Your task to perform on an android device: Show me productivity apps on the Play Store Image 0: 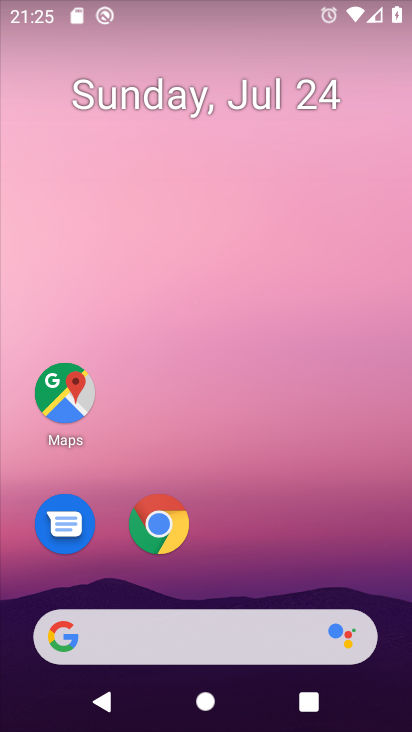
Step 0: drag from (225, 559) to (267, 10)
Your task to perform on an android device: Show me productivity apps on the Play Store Image 1: 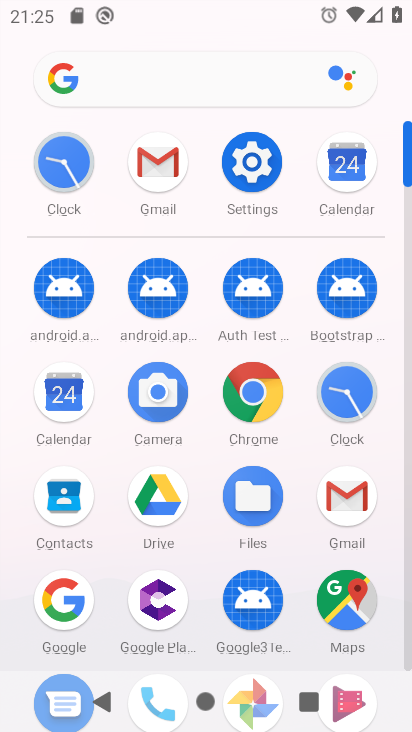
Step 1: drag from (196, 536) to (211, 31)
Your task to perform on an android device: Show me productivity apps on the Play Store Image 2: 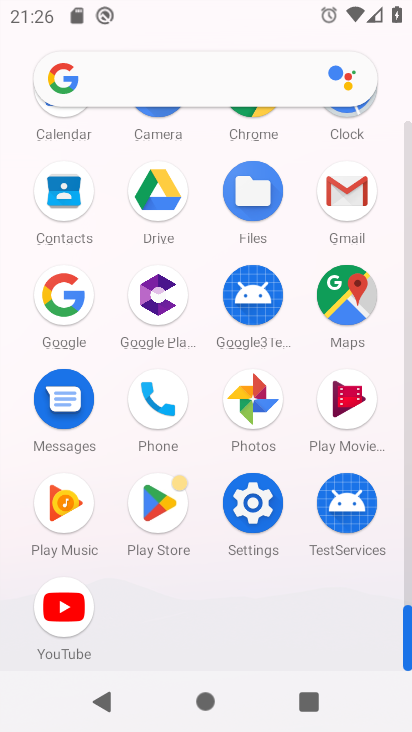
Step 2: click (156, 492)
Your task to perform on an android device: Show me productivity apps on the Play Store Image 3: 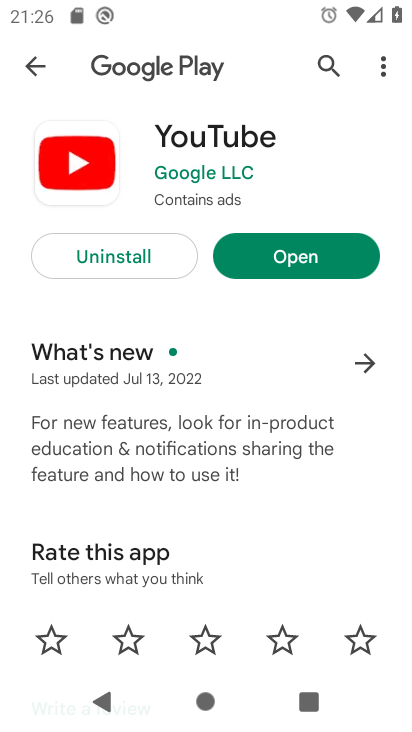
Step 3: click (40, 63)
Your task to perform on an android device: Show me productivity apps on the Play Store Image 4: 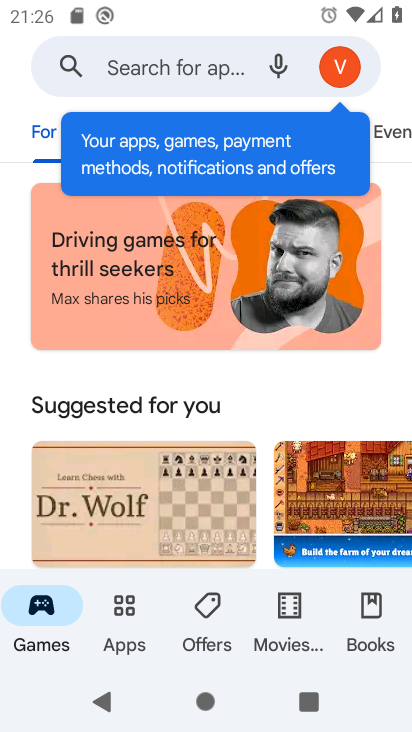
Step 4: click (128, 618)
Your task to perform on an android device: Show me productivity apps on the Play Store Image 5: 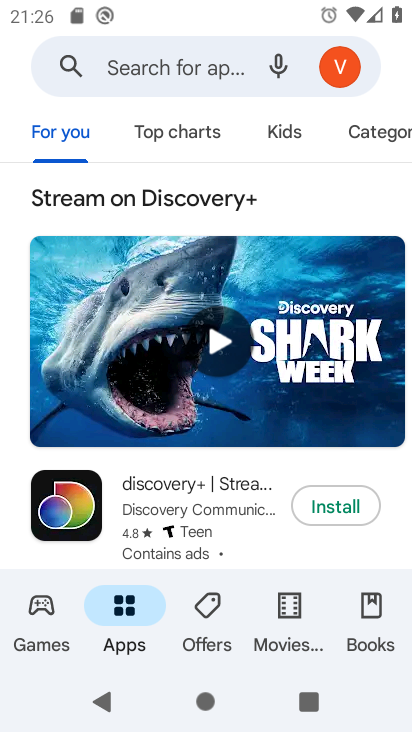
Step 5: click (385, 128)
Your task to perform on an android device: Show me productivity apps on the Play Store Image 6: 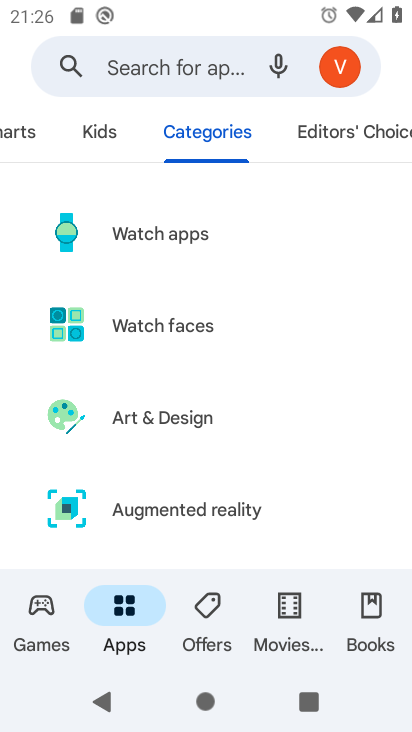
Step 6: drag from (243, 456) to (260, 6)
Your task to perform on an android device: Show me productivity apps on the Play Store Image 7: 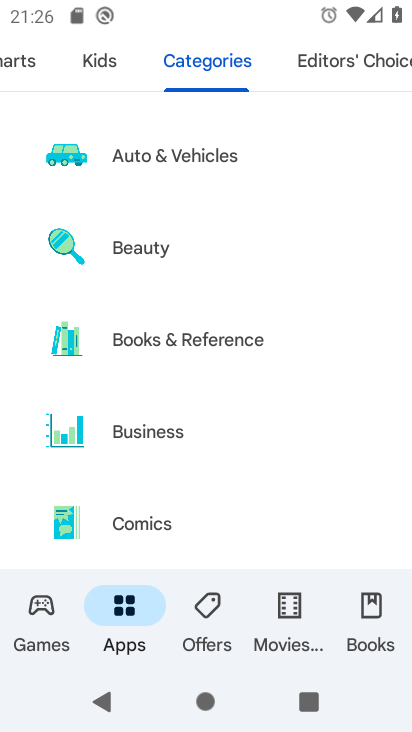
Step 7: drag from (256, 515) to (268, 7)
Your task to perform on an android device: Show me productivity apps on the Play Store Image 8: 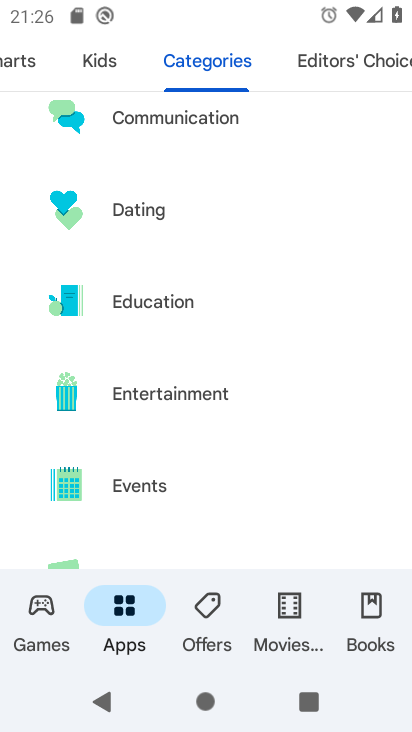
Step 8: drag from (258, 469) to (267, 146)
Your task to perform on an android device: Show me productivity apps on the Play Store Image 9: 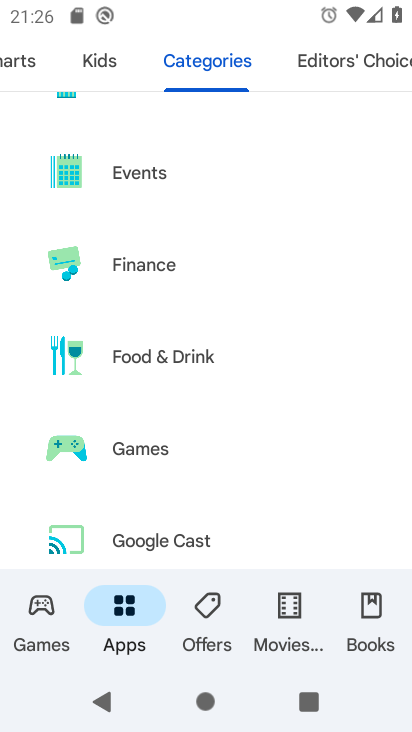
Step 9: drag from (265, 287) to (263, 109)
Your task to perform on an android device: Show me productivity apps on the Play Store Image 10: 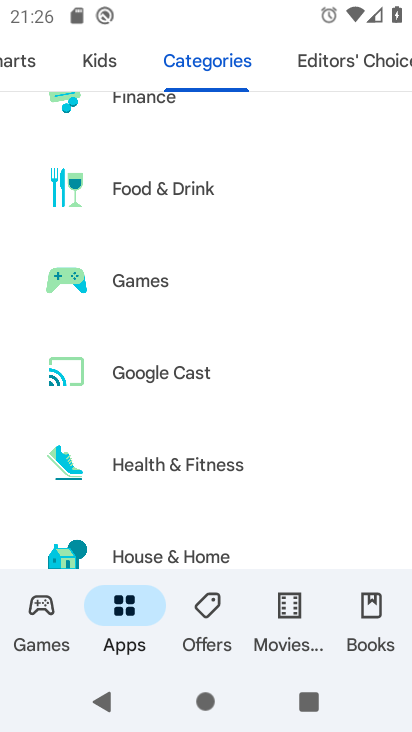
Step 10: drag from (212, 499) to (239, 153)
Your task to perform on an android device: Show me productivity apps on the Play Store Image 11: 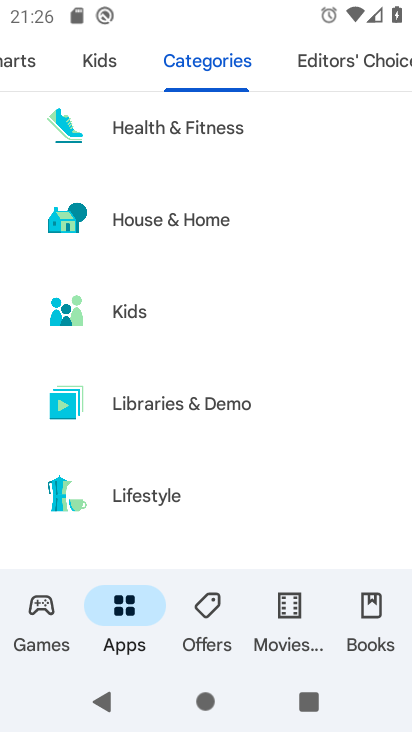
Step 11: drag from (223, 453) to (255, 138)
Your task to perform on an android device: Show me productivity apps on the Play Store Image 12: 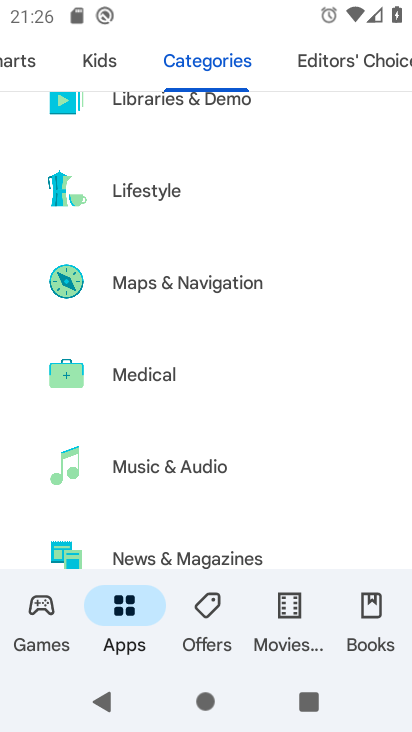
Step 12: drag from (258, 512) to (301, 127)
Your task to perform on an android device: Show me productivity apps on the Play Store Image 13: 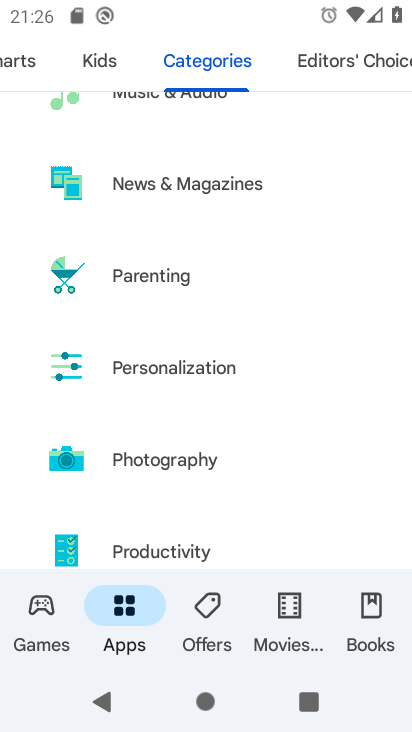
Step 13: drag from (252, 443) to (265, 192)
Your task to perform on an android device: Show me productivity apps on the Play Store Image 14: 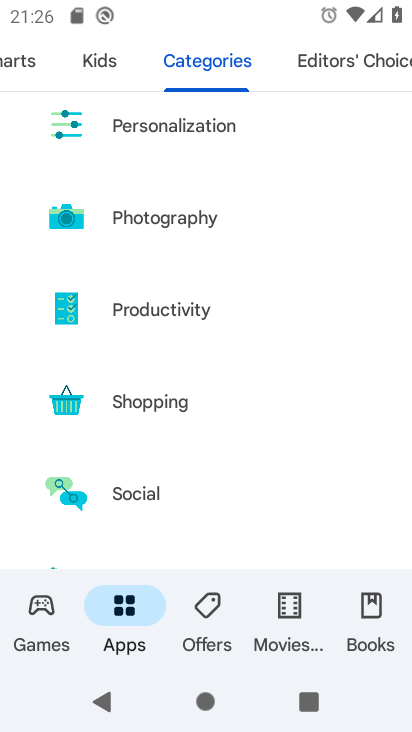
Step 14: click (203, 306)
Your task to perform on an android device: Show me productivity apps on the Play Store Image 15: 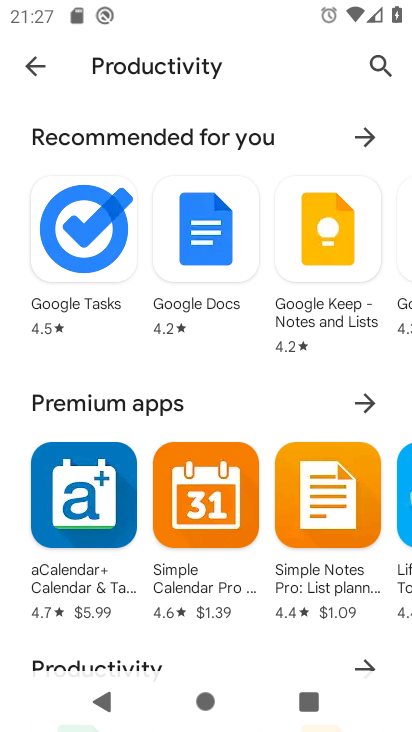
Step 15: drag from (223, 418) to (233, 189)
Your task to perform on an android device: Show me productivity apps on the Play Store Image 16: 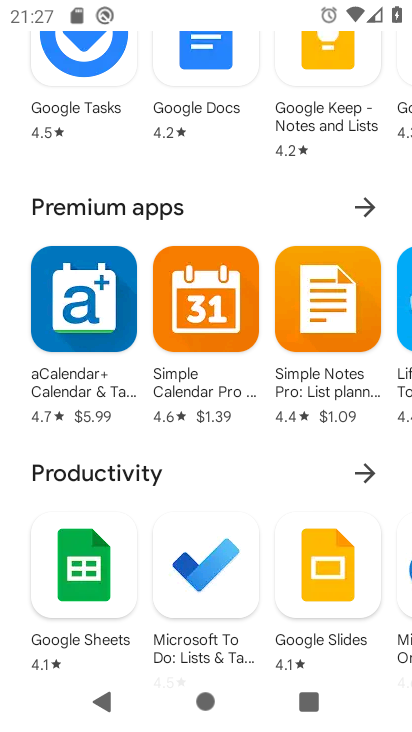
Step 16: click (363, 469)
Your task to perform on an android device: Show me productivity apps on the Play Store Image 17: 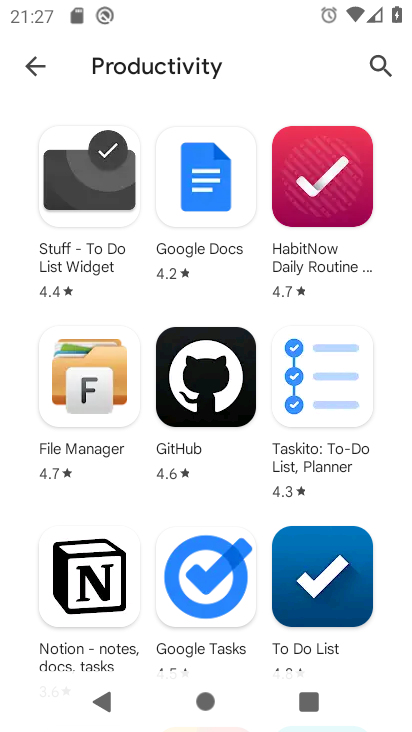
Step 17: task complete